Your task to perform on an android device: turn on bluetooth scan Image 0: 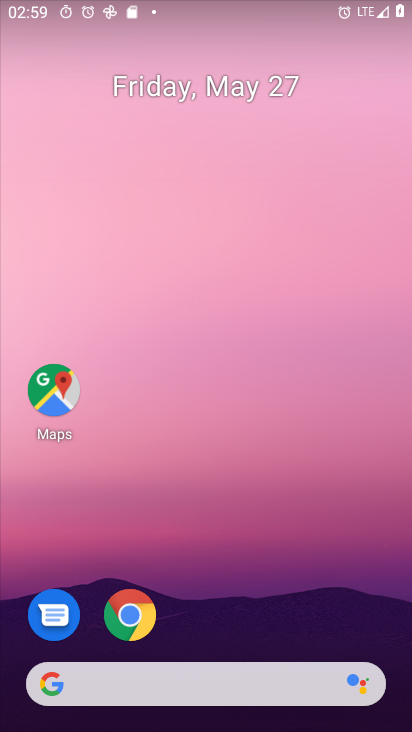
Step 0: drag from (336, 609) to (345, 223)
Your task to perform on an android device: turn on bluetooth scan Image 1: 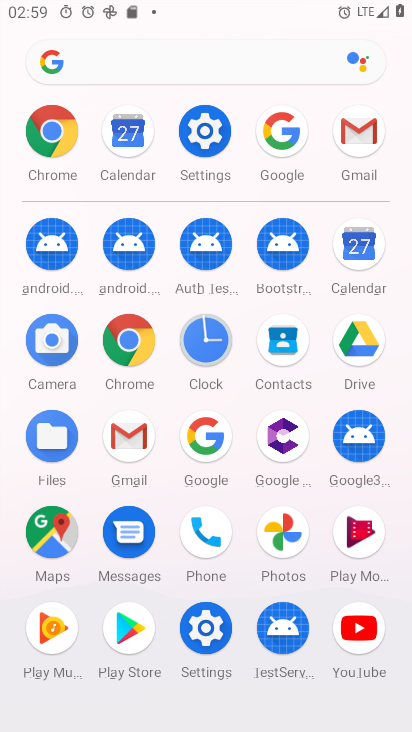
Step 1: click (213, 638)
Your task to perform on an android device: turn on bluetooth scan Image 2: 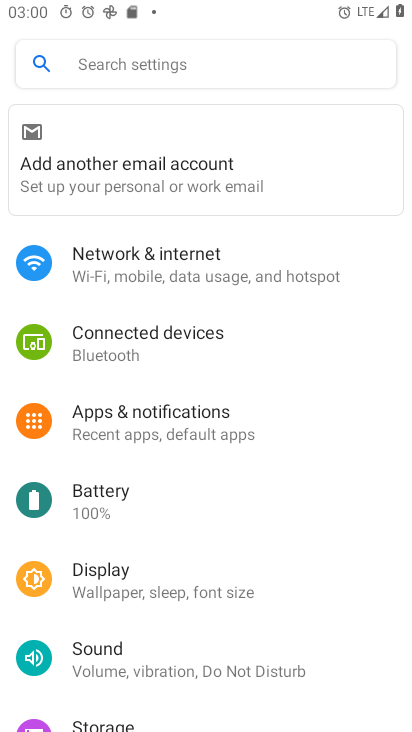
Step 2: drag from (301, 561) to (295, 419)
Your task to perform on an android device: turn on bluetooth scan Image 3: 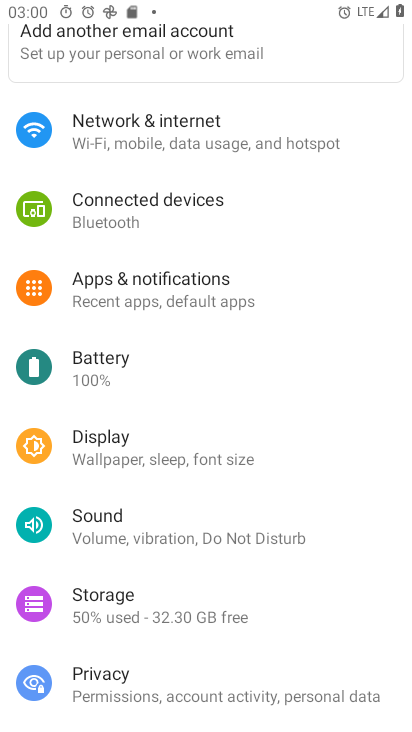
Step 3: drag from (323, 605) to (322, 511)
Your task to perform on an android device: turn on bluetooth scan Image 4: 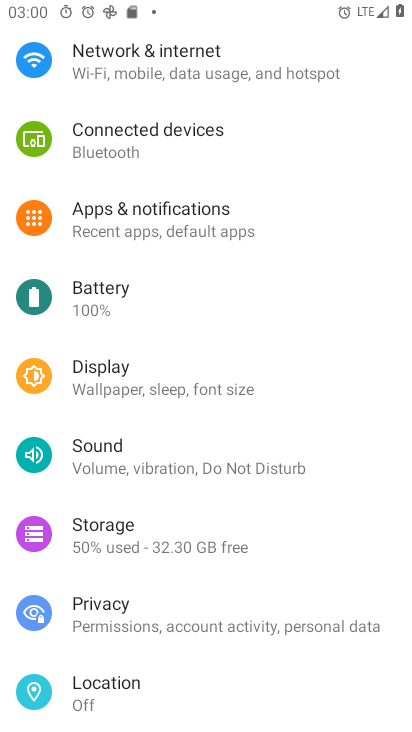
Step 4: drag from (332, 657) to (329, 563)
Your task to perform on an android device: turn on bluetooth scan Image 5: 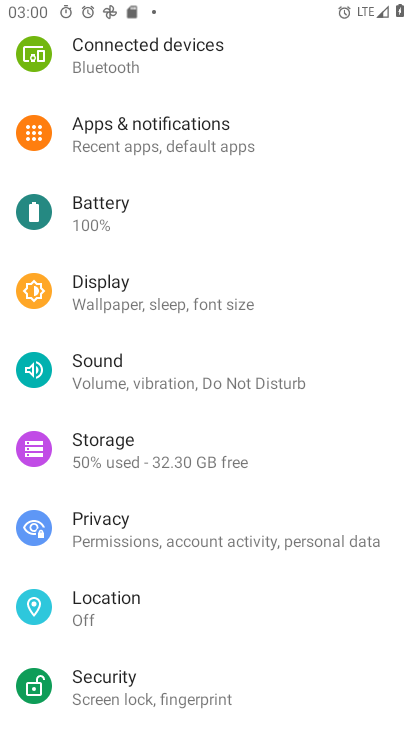
Step 5: drag from (337, 654) to (330, 534)
Your task to perform on an android device: turn on bluetooth scan Image 6: 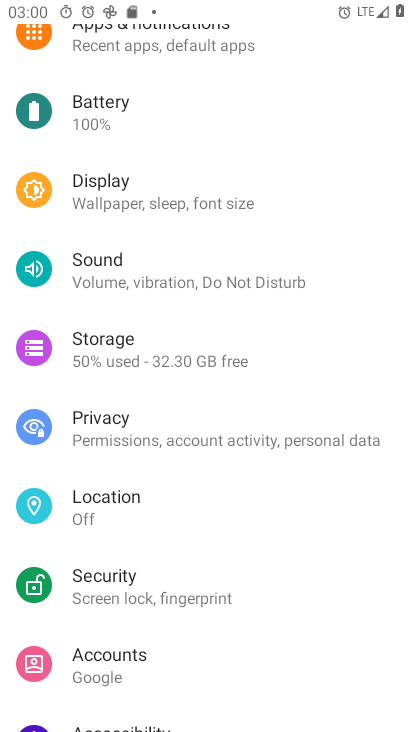
Step 6: drag from (331, 615) to (318, 505)
Your task to perform on an android device: turn on bluetooth scan Image 7: 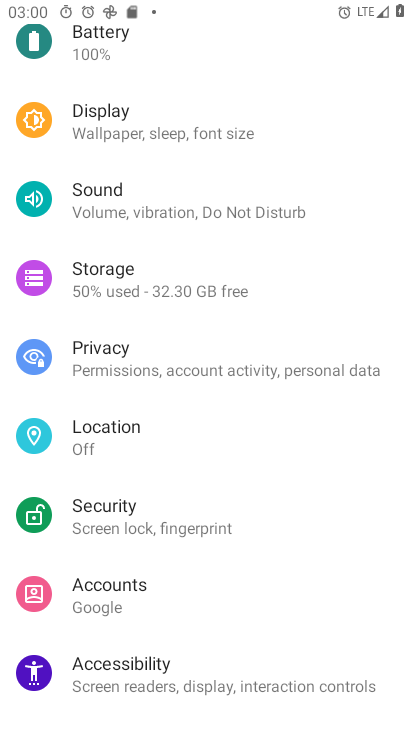
Step 7: drag from (328, 608) to (306, 507)
Your task to perform on an android device: turn on bluetooth scan Image 8: 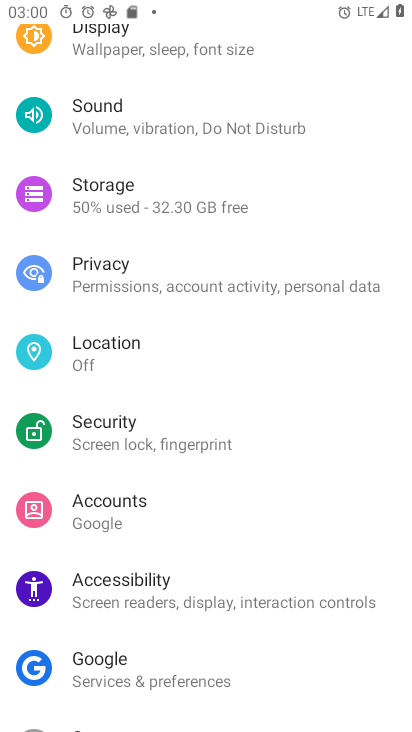
Step 8: drag from (311, 630) to (306, 530)
Your task to perform on an android device: turn on bluetooth scan Image 9: 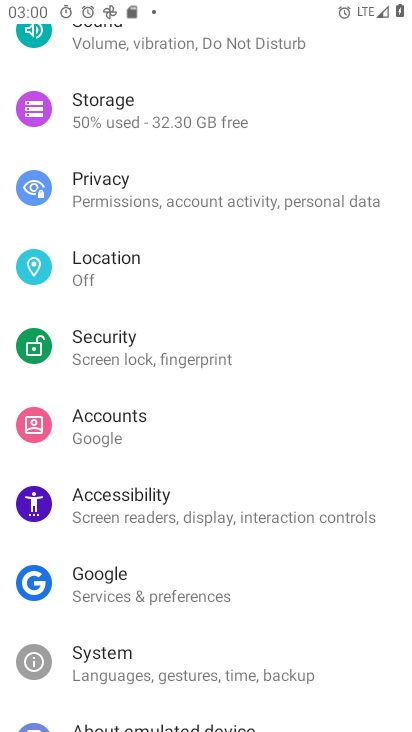
Step 9: drag from (325, 629) to (324, 514)
Your task to perform on an android device: turn on bluetooth scan Image 10: 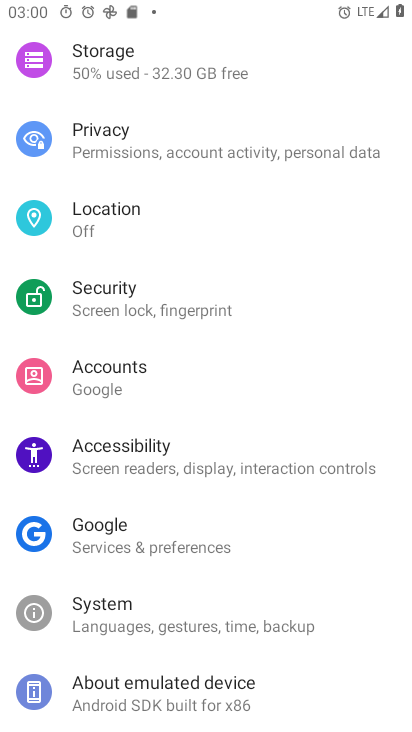
Step 10: click (181, 241)
Your task to perform on an android device: turn on bluetooth scan Image 11: 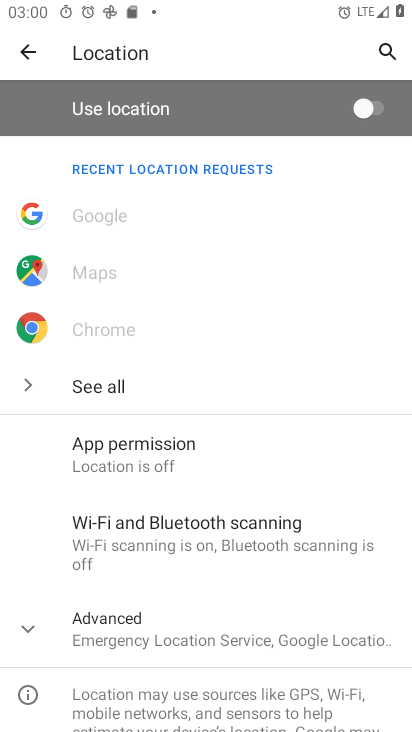
Step 11: click (236, 536)
Your task to perform on an android device: turn on bluetooth scan Image 12: 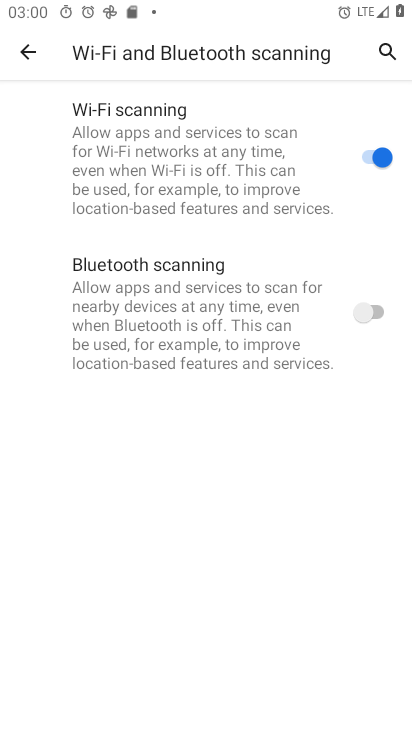
Step 12: click (359, 302)
Your task to perform on an android device: turn on bluetooth scan Image 13: 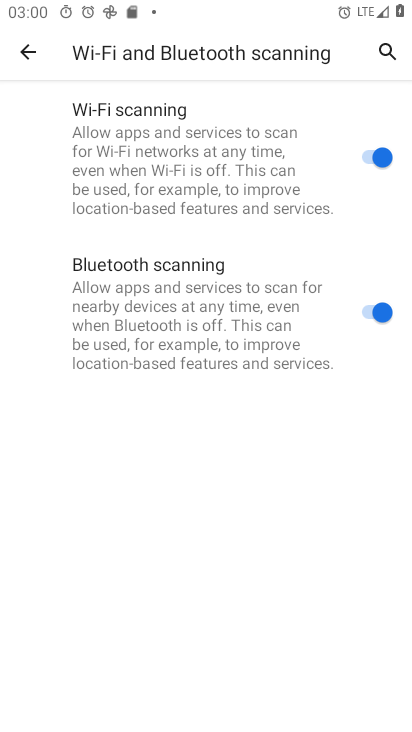
Step 13: task complete